Your task to perform on an android device: Open battery settings Image 0: 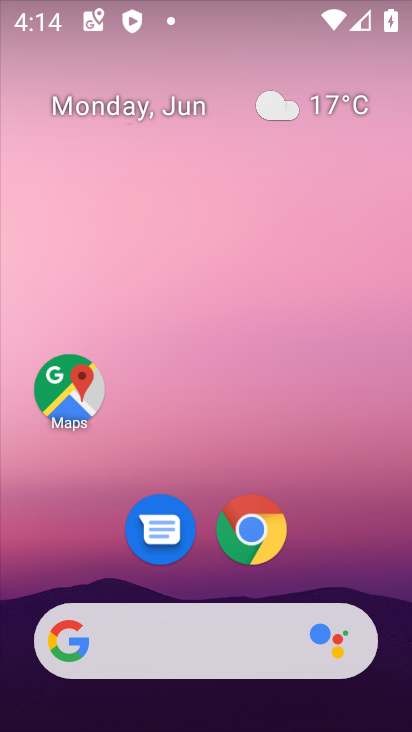
Step 0: drag from (342, 516) to (286, 64)
Your task to perform on an android device: Open battery settings Image 1: 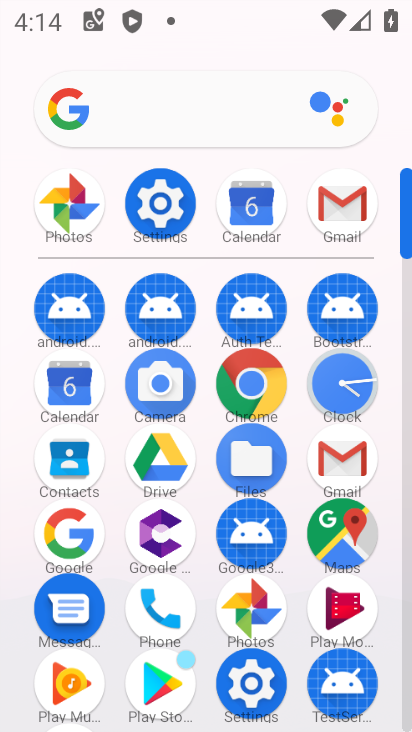
Step 1: click (162, 204)
Your task to perform on an android device: Open battery settings Image 2: 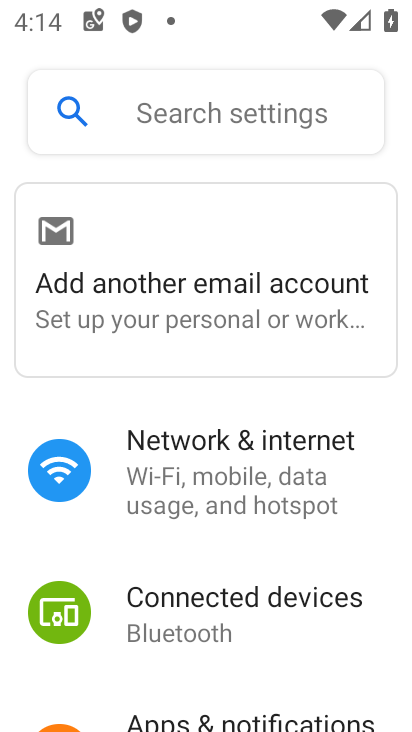
Step 2: drag from (208, 553) to (348, 196)
Your task to perform on an android device: Open battery settings Image 3: 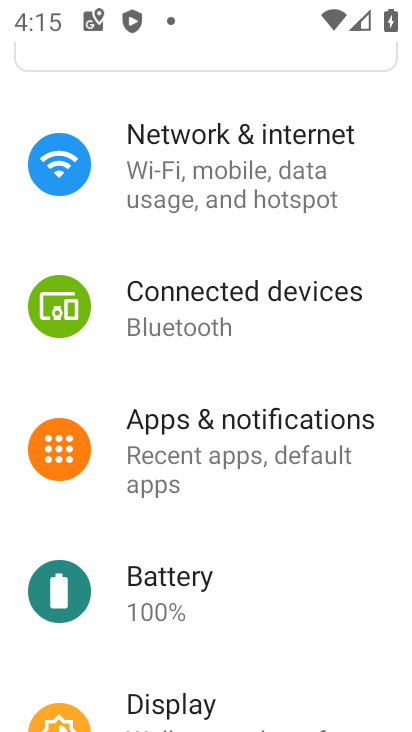
Step 3: click (207, 571)
Your task to perform on an android device: Open battery settings Image 4: 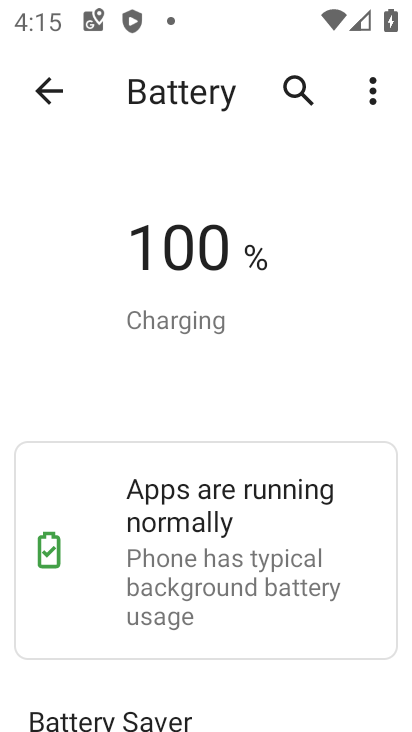
Step 4: task complete